Your task to perform on an android device: turn on airplane mode Image 0: 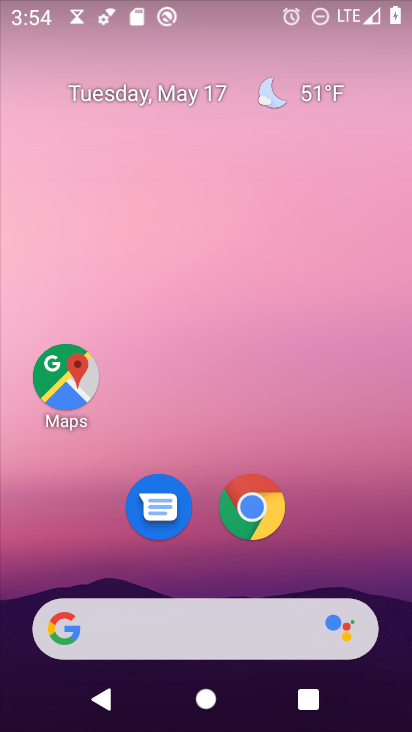
Step 0: drag from (232, 582) to (187, 45)
Your task to perform on an android device: turn on airplane mode Image 1: 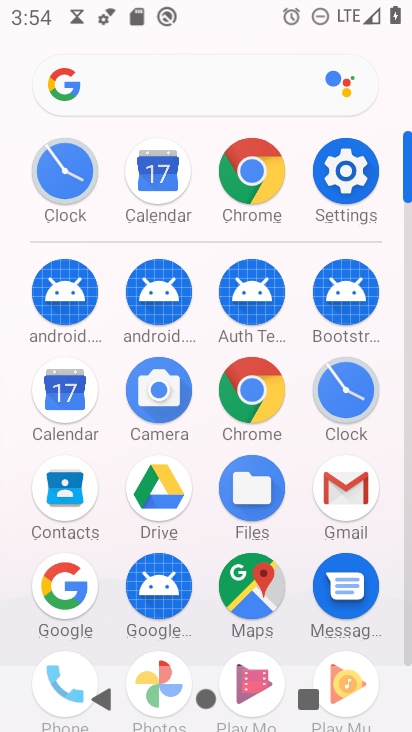
Step 1: click (356, 178)
Your task to perform on an android device: turn on airplane mode Image 2: 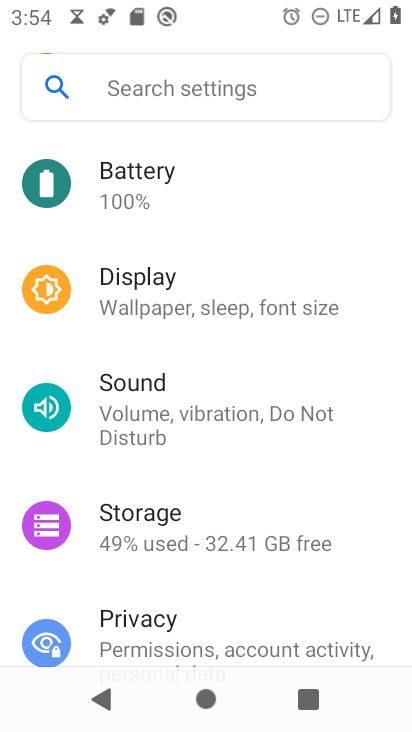
Step 2: drag from (213, 248) to (251, 527)
Your task to perform on an android device: turn on airplane mode Image 3: 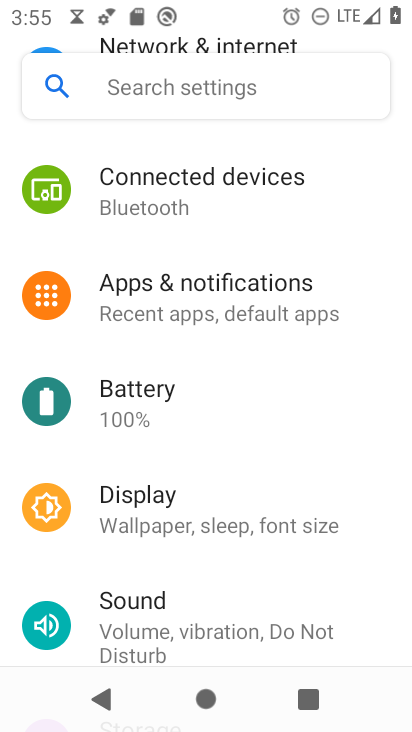
Step 3: drag from (249, 262) to (281, 604)
Your task to perform on an android device: turn on airplane mode Image 4: 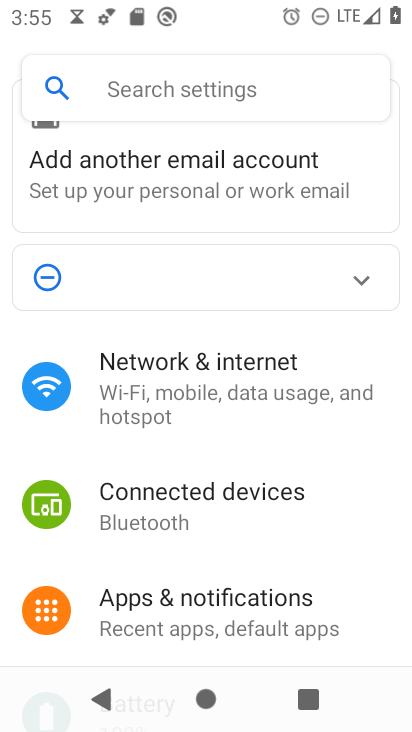
Step 4: click (162, 373)
Your task to perform on an android device: turn on airplane mode Image 5: 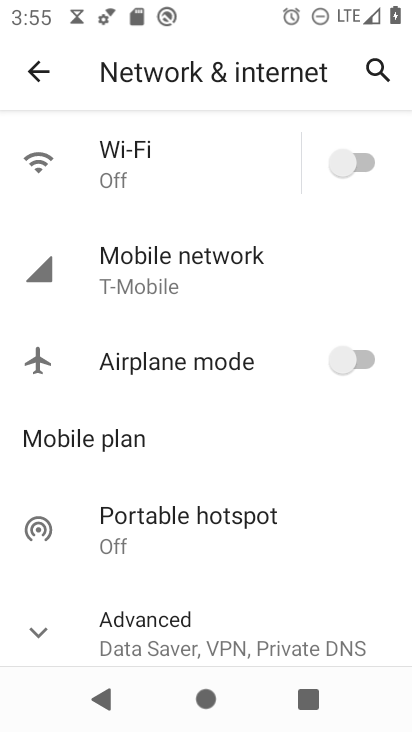
Step 5: click (351, 359)
Your task to perform on an android device: turn on airplane mode Image 6: 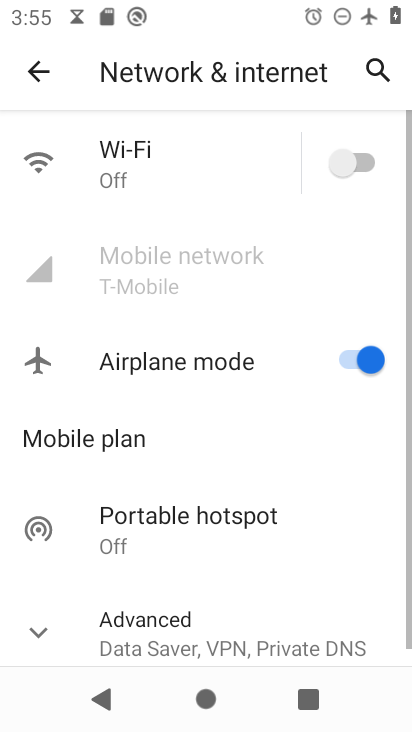
Step 6: task complete